Your task to perform on an android device: Go to eBay Image 0: 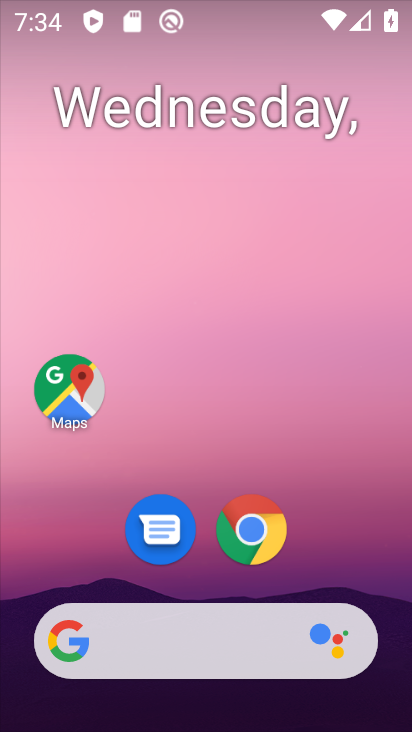
Step 0: click (252, 532)
Your task to perform on an android device: Go to eBay Image 1: 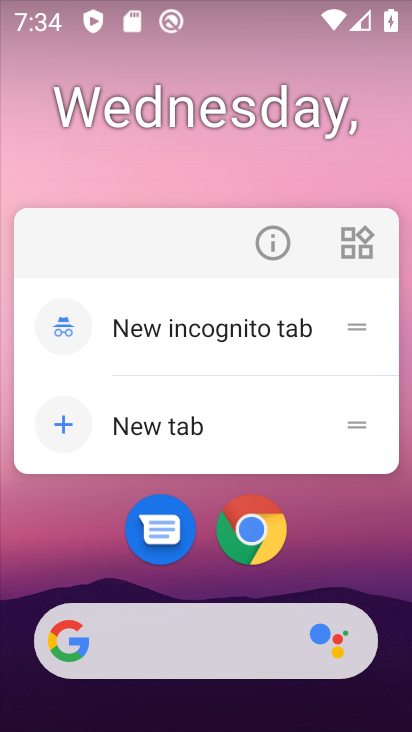
Step 1: click (252, 532)
Your task to perform on an android device: Go to eBay Image 2: 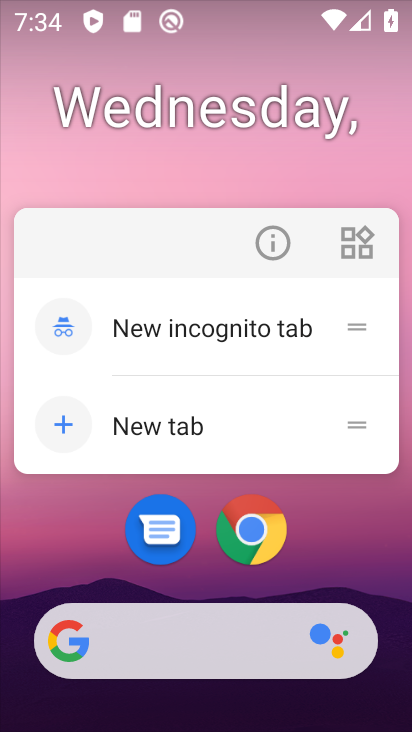
Step 2: click (254, 534)
Your task to perform on an android device: Go to eBay Image 3: 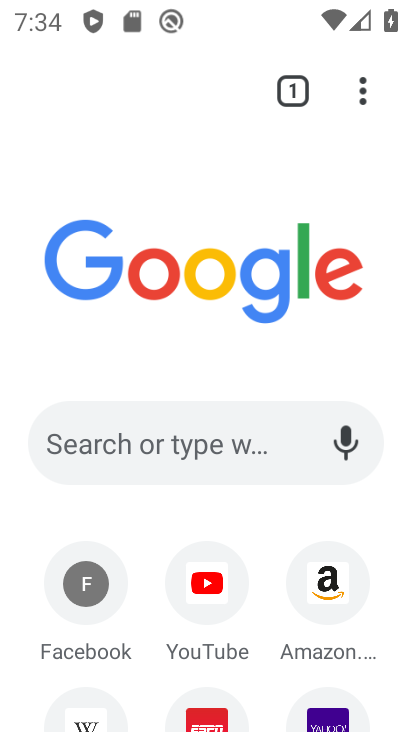
Step 3: drag from (208, 490) to (212, 425)
Your task to perform on an android device: Go to eBay Image 4: 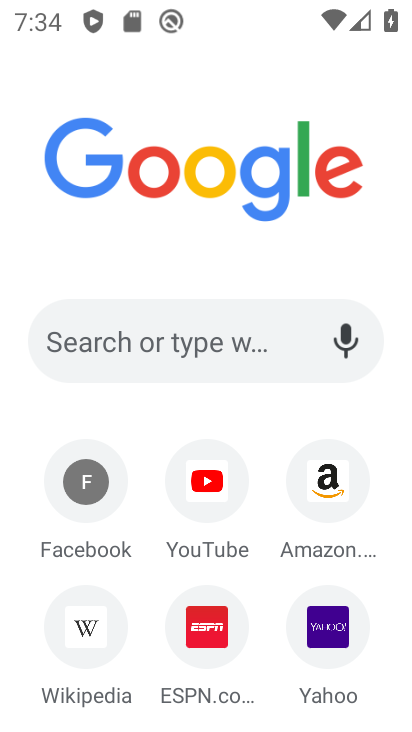
Step 4: click (174, 403)
Your task to perform on an android device: Go to eBay Image 5: 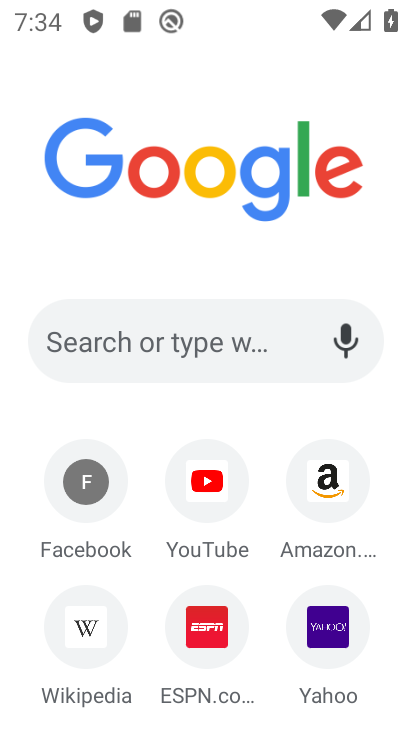
Step 5: click (173, 362)
Your task to perform on an android device: Go to eBay Image 6: 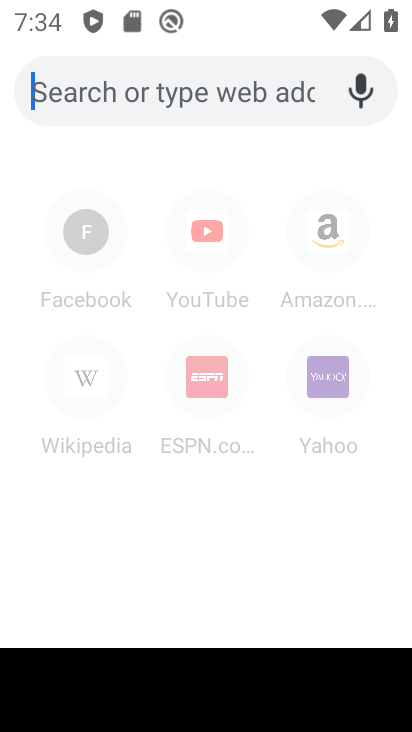
Step 6: type "eBay"
Your task to perform on an android device: Go to eBay Image 7: 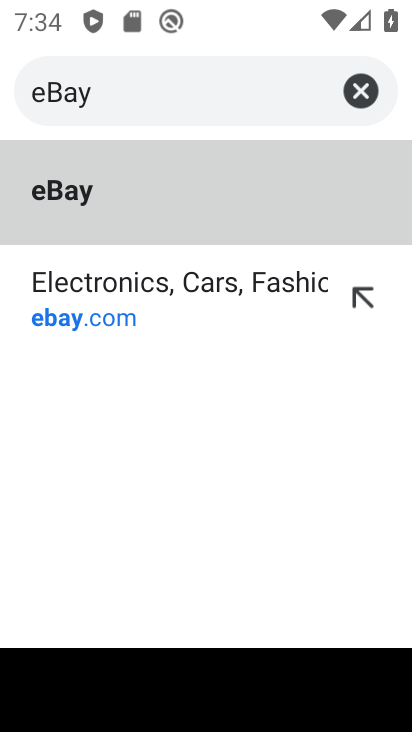
Step 7: click (94, 197)
Your task to perform on an android device: Go to eBay Image 8: 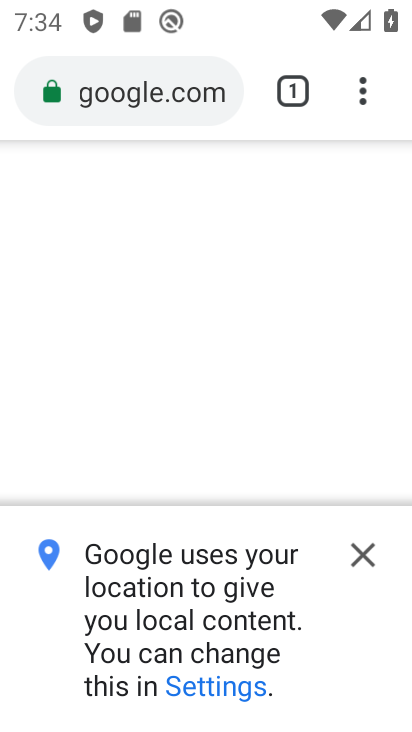
Step 8: click (357, 554)
Your task to perform on an android device: Go to eBay Image 9: 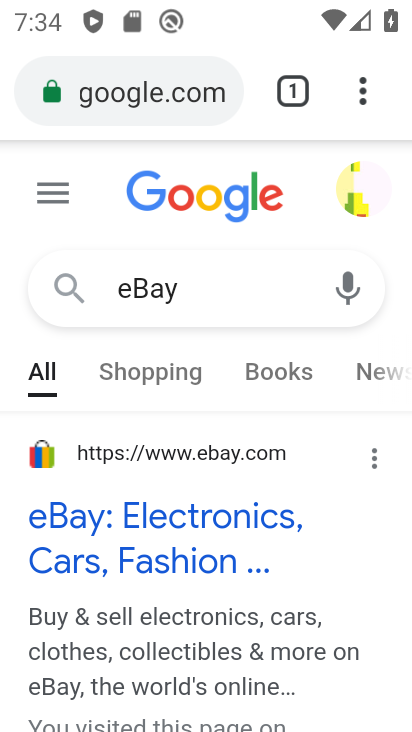
Step 9: task complete